Your task to perform on an android device: see sites visited before in the chrome app Image 0: 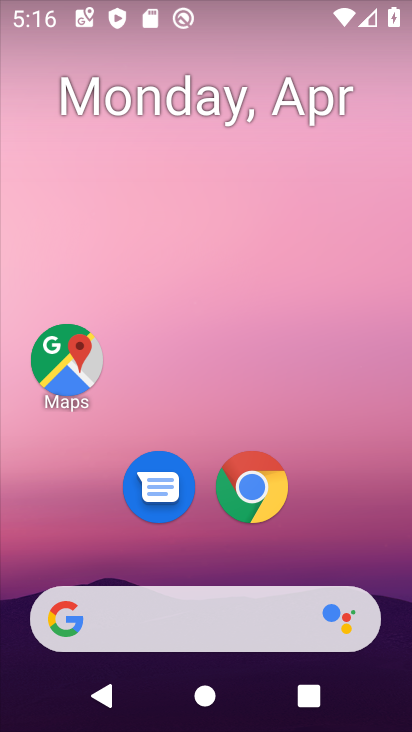
Step 0: drag from (380, 557) to (317, 191)
Your task to perform on an android device: see sites visited before in the chrome app Image 1: 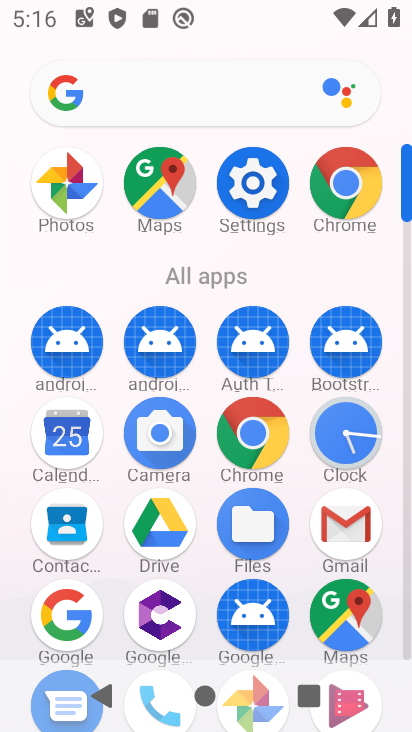
Step 1: click (352, 194)
Your task to perform on an android device: see sites visited before in the chrome app Image 2: 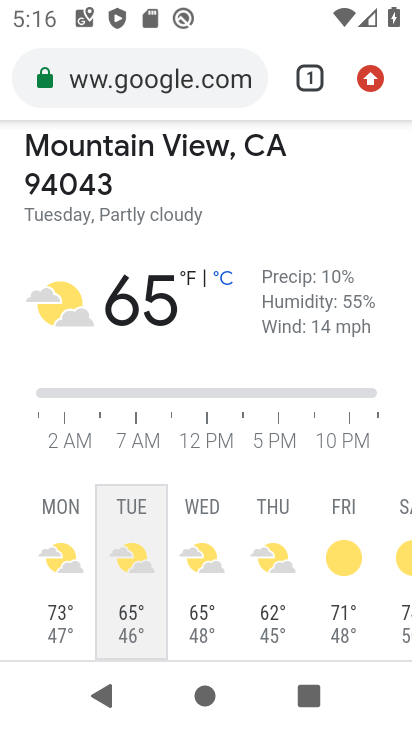
Step 2: drag from (365, 116) to (239, 561)
Your task to perform on an android device: see sites visited before in the chrome app Image 3: 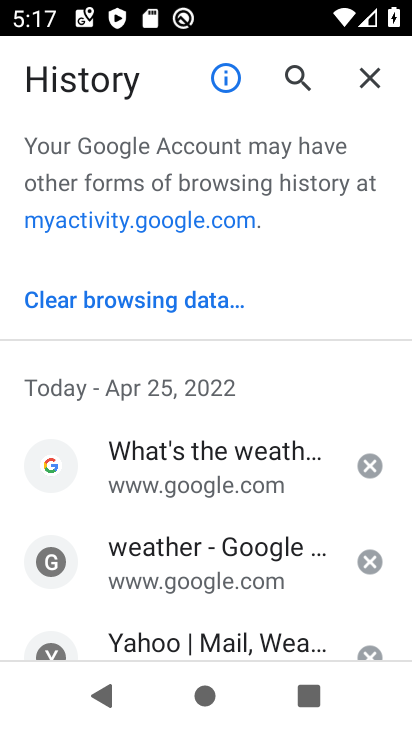
Step 3: click (197, 298)
Your task to perform on an android device: see sites visited before in the chrome app Image 4: 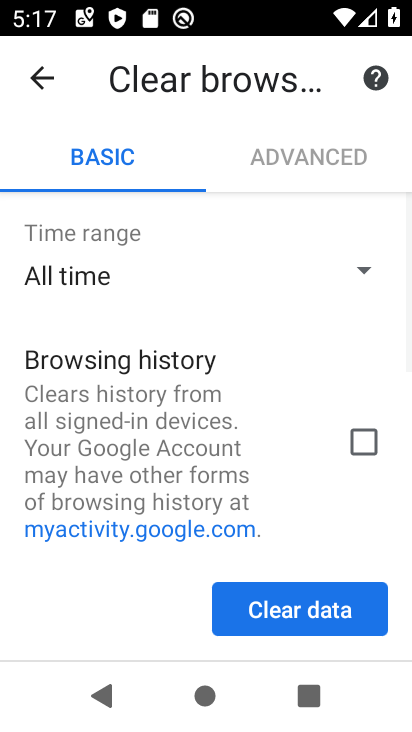
Step 4: click (379, 459)
Your task to perform on an android device: see sites visited before in the chrome app Image 5: 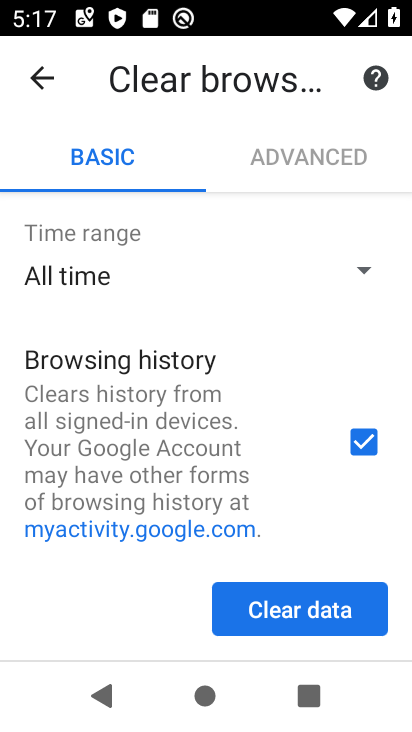
Step 5: click (331, 619)
Your task to perform on an android device: see sites visited before in the chrome app Image 6: 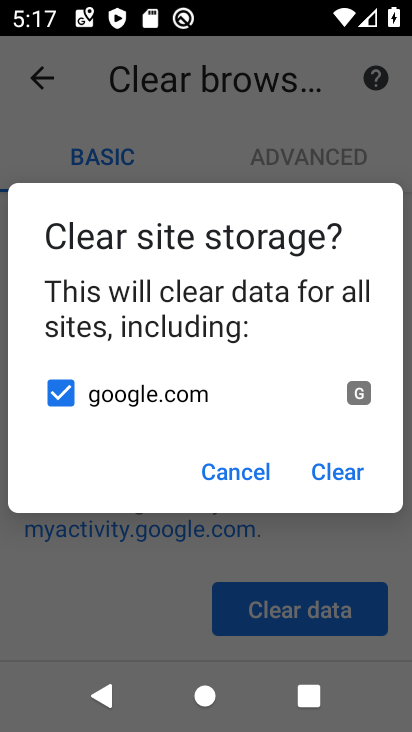
Step 6: click (336, 484)
Your task to perform on an android device: see sites visited before in the chrome app Image 7: 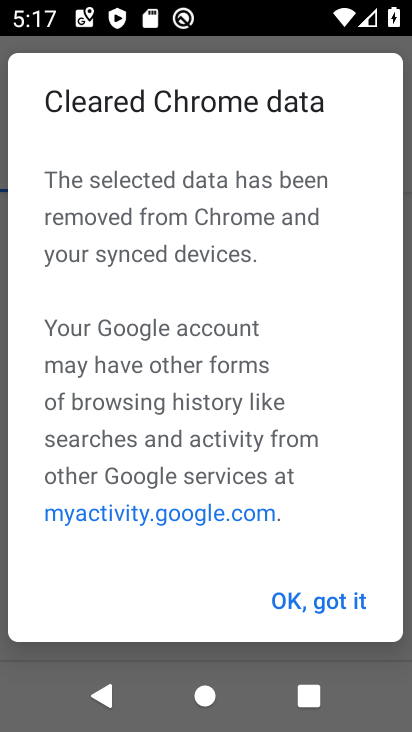
Step 7: click (322, 597)
Your task to perform on an android device: see sites visited before in the chrome app Image 8: 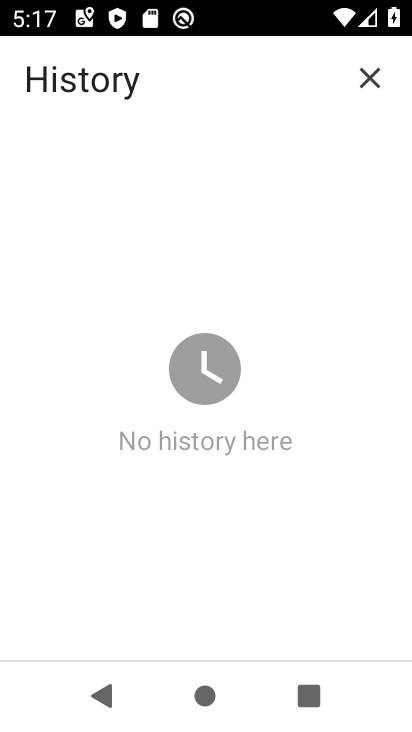
Step 8: task complete